Your task to perform on an android device: turn on javascript in the chrome app Image 0: 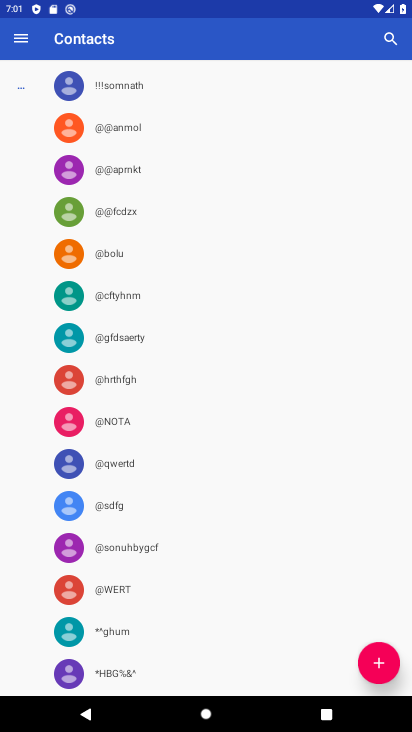
Step 0: press home button
Your task to perform on an android device: turn on javascript in the chrome app Image 1: 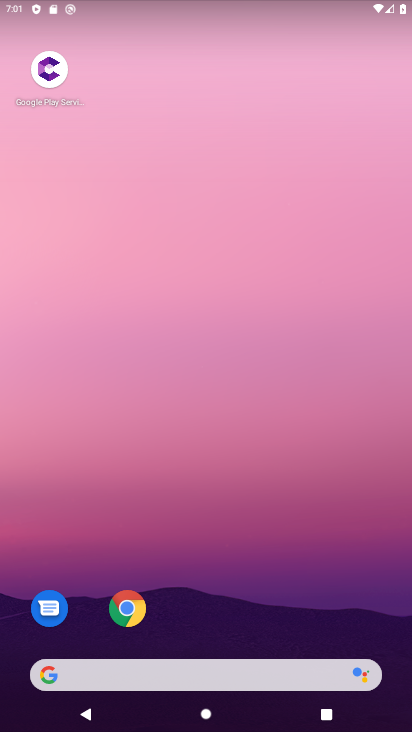
Step 1: drag from (222, 541) to (276, 48)
Your task to perform on an android device: turn on javascript in the chrome app Image 2: 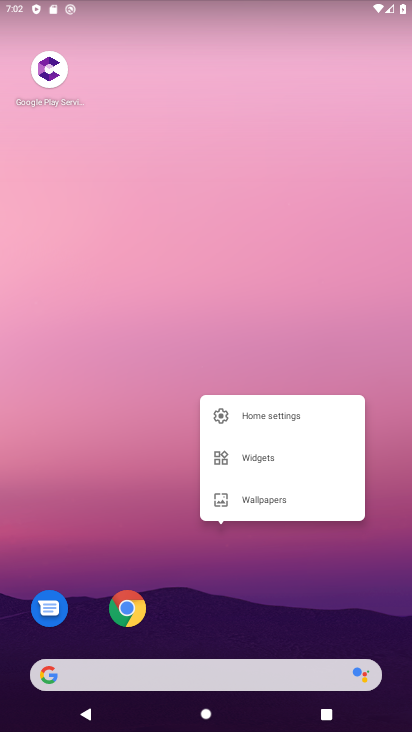
Step 2: click (136, 618)
Your task to perform on an android device: turn on javascript in the chrome app Image 3: 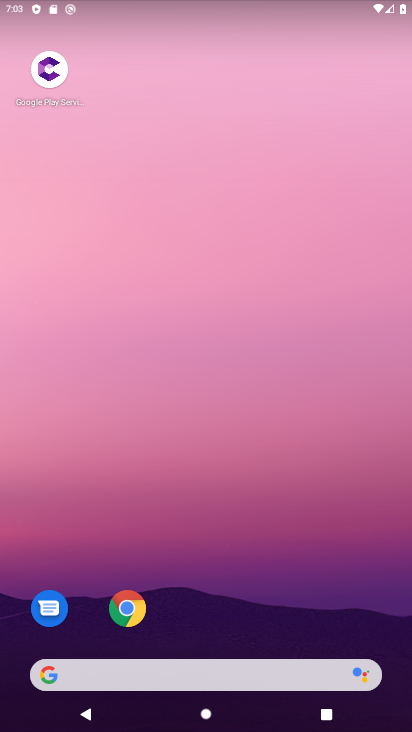
Step 3: click (128, 605)
Your task to perform on an android device: turn on javascript in the chrome app Image 4: 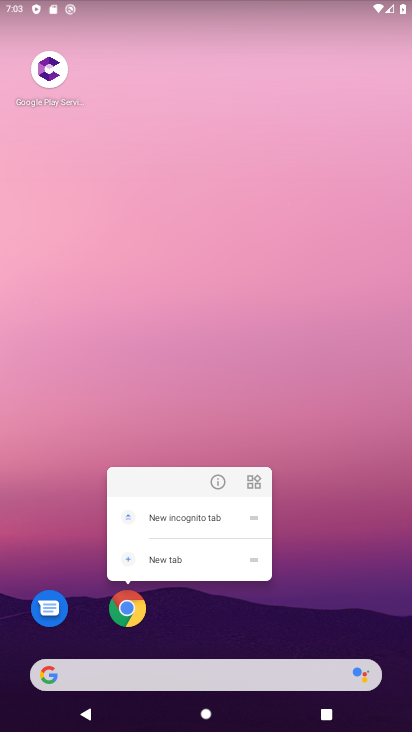
Step 4: click (127, 607)
Your task to perform on an android device: turn on javascript in the chrome app Image 5: 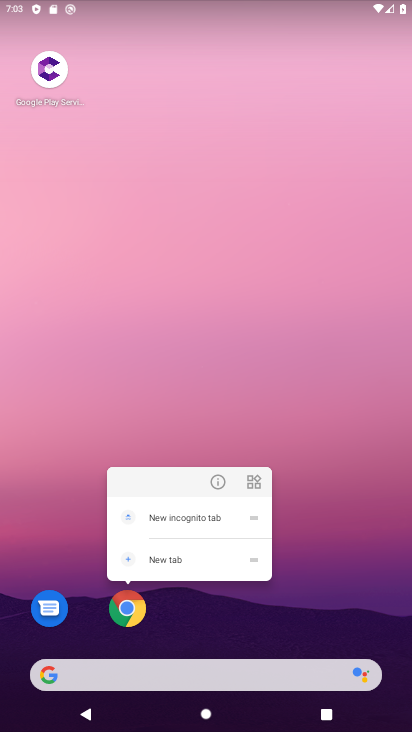
Step 5: click (119, 618)
Your task to perform on an android device: turn on javascript in the chrome app Image 6: 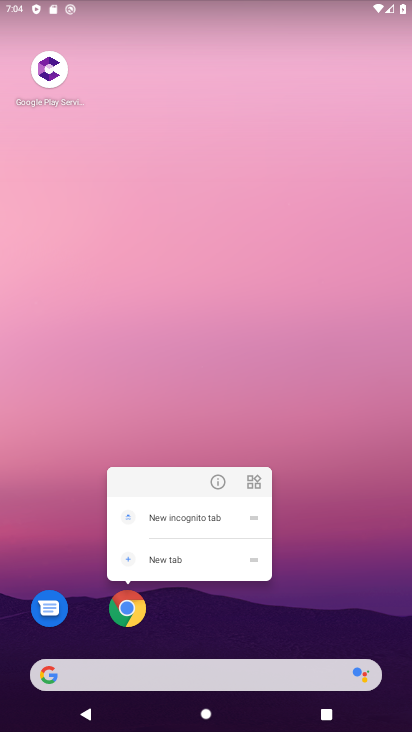
Step 6: click (138, 606)
Your task to perform on an android device: turn on javascript in the chrome app Image 7: 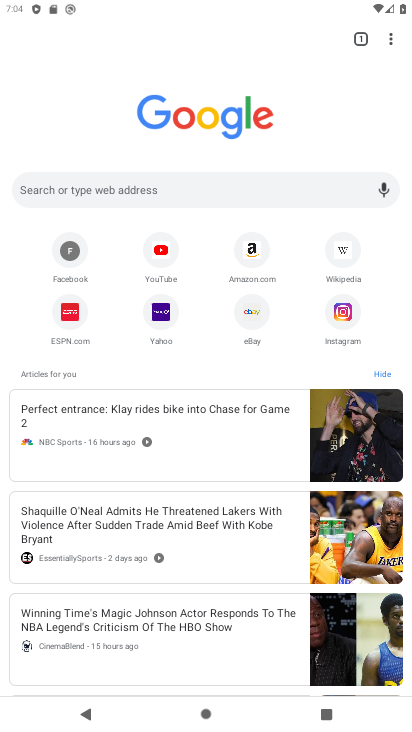
Step 7: drag from (387, 42) to (268, 323)
Your task to perform on an android device: turn on javascript in the chrome app Image 8: 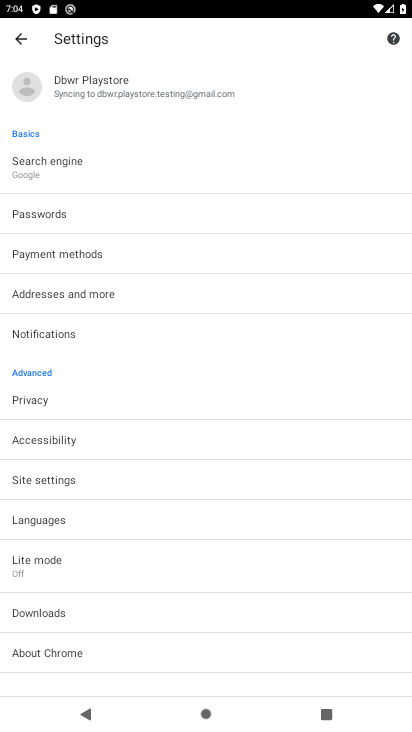
Step 8: click (86, 565)
Your task to perform on an android device: turn on javascript in the chrome app Image 9: 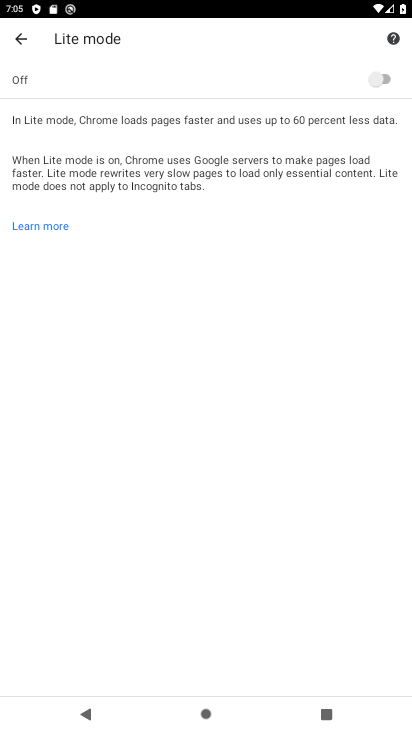
Step 9: click (20, 41)
Your task to perform on an android device: turn on javascript in the chrome app Image 10: 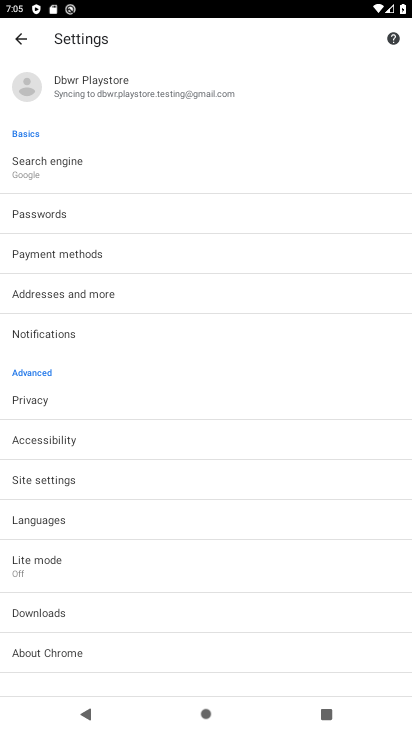
Step 10: click (81, 489)
Your task to perform on an android device: turn on javascript in the chrome app Image 11: 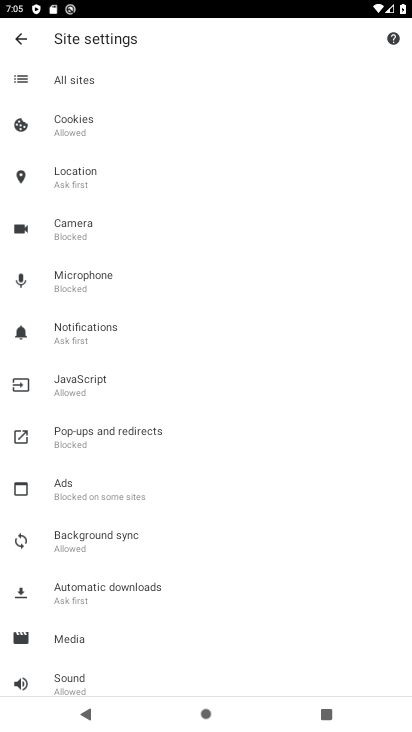
Step 11: click (123, 388)
Your task to perform on an android device: turn on javascript in the chrome app Image 12: 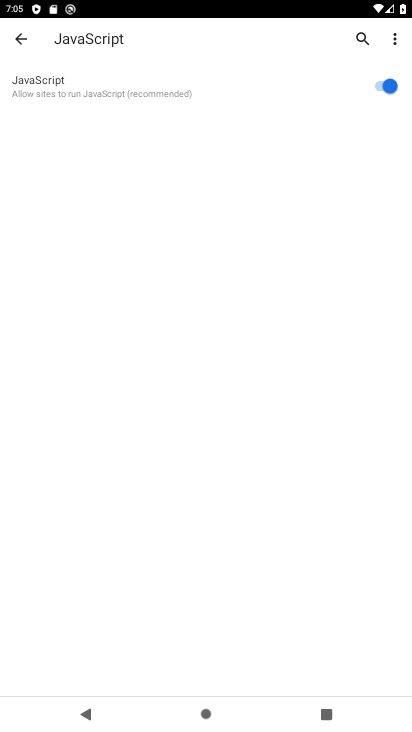
Step 12: click (392, 80)
Your task to perform on an android device: turn on javascript in the chrome app Image 13: 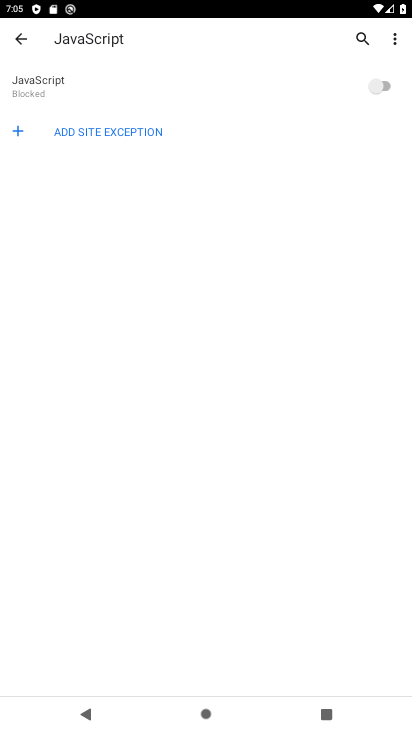
Step 13: click (392, 80)
Your task to perform on an android device: turn on javascript in the chrome app Image 14: 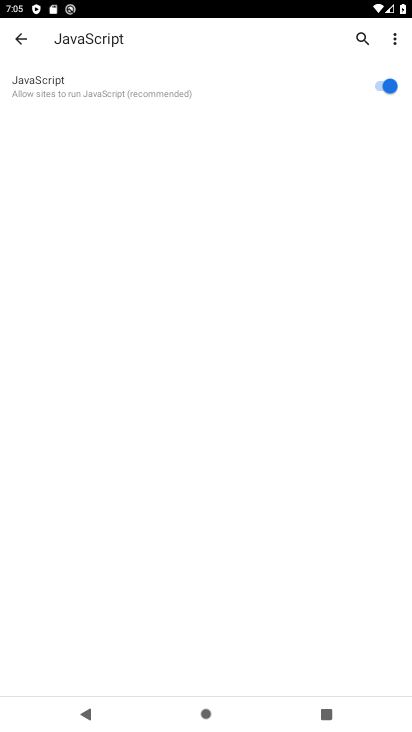
Step 14: task complete